Your task to perform on an android device: turn on javascript in the chrome app Image 0: 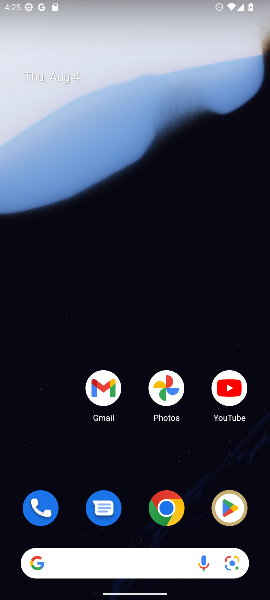
Step 0: drag from (125, 456) to (142, 181)
Your task to perform on an android device: turn on javascript in the chrome app Image 1: 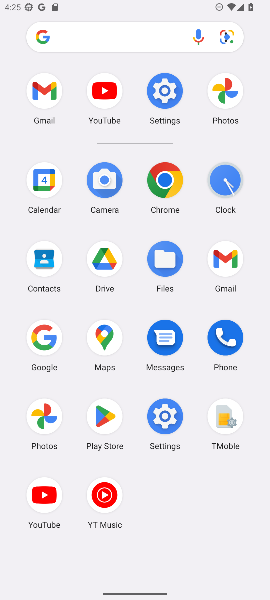
Step 1: click (169, 178)
Your task to perform on an android device: turn on javascript in the chrome app Image 2: 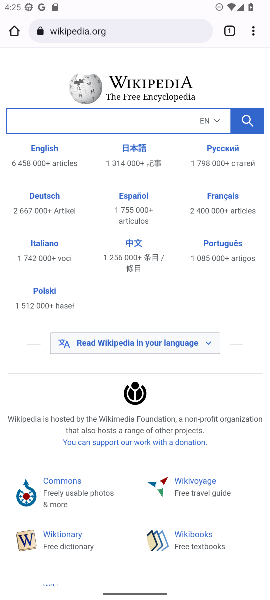
Step 2: drag from (250, 32) to (173, 394)
Your task to perform on an android device: turn on javascript in the chrome app Image 3: 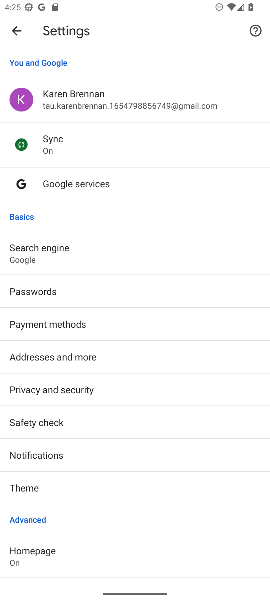
Step 3: drag from (104, 473) to (147, 260)
Your task to perform on an android device: turn on javascript in the chrome app Image 4: 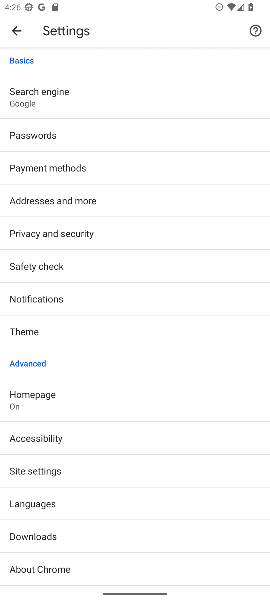
Step 4: click (46, 472)
Your task to perform on an android device: turn on javascript in the chrome app Image 5: 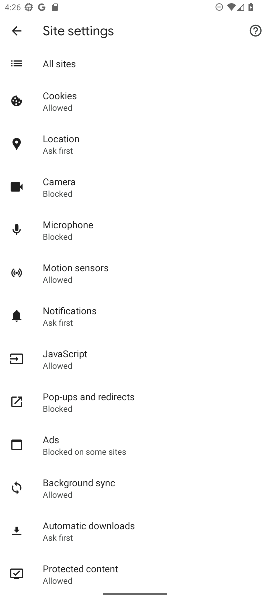
Step 5: click (62, 360)
Your task to perform on an android device: turn on javascript in the chrome app Image 6: 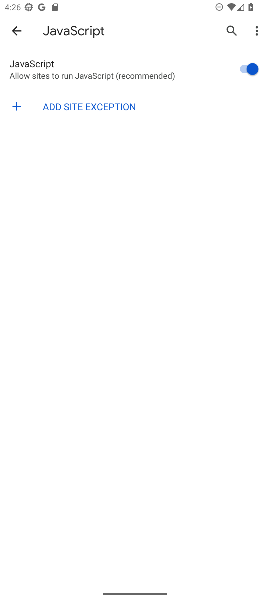
Step 6: task complete